Your task to perform on an android device: toggle priority inbox in the gmail app Image 0: 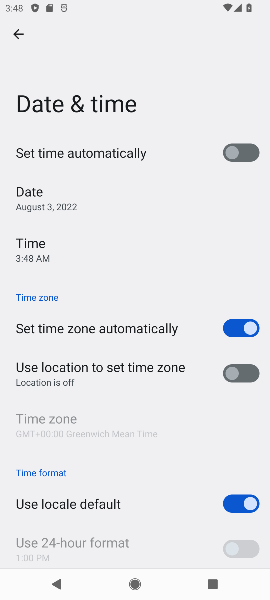
Step 0: press home button
Your task to perform on an android device: toggle priority inbox in the gmail app Image 1: 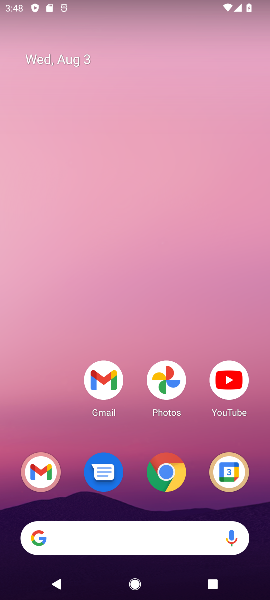
Step 1: drag from (206, 494) to (117, 86)
Your task to perform on an android device: toggle priority inbox in the gmail app Image 2: 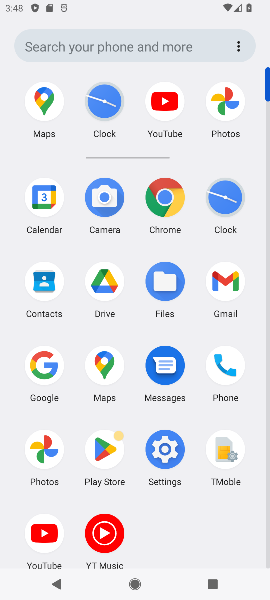
Step 2: click (225, 289)
Your task to perform on an android device: toggle priority inbox in the gmail app Image 3: 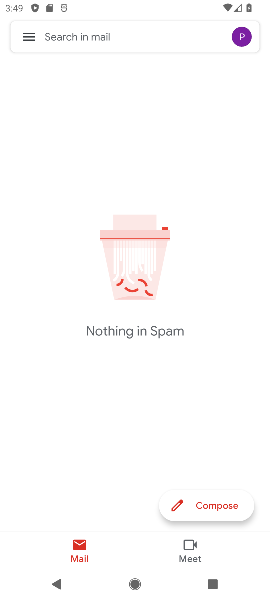
Step 3: click (23, 41)
Your task to perform on an android device: toggle priority inbox in the gmail app Image 4: 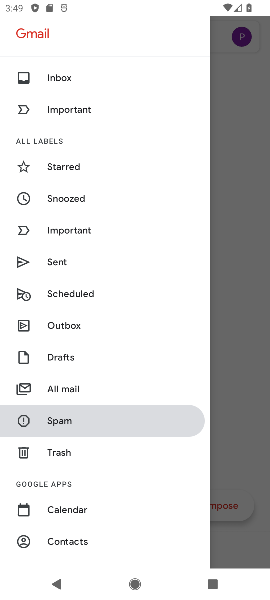
Step 4: drag from (43, 501) to (103, 112)
Your task to perform on an android device: toggle priority inbox in the gmail app Image 5: 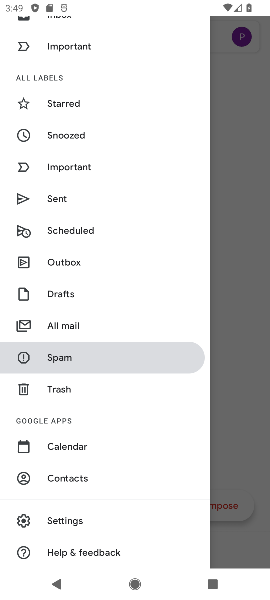
Step 5: click (53, 523)
Your task to perform on an android device: toggle priority inbox in the gmail app Image 6: 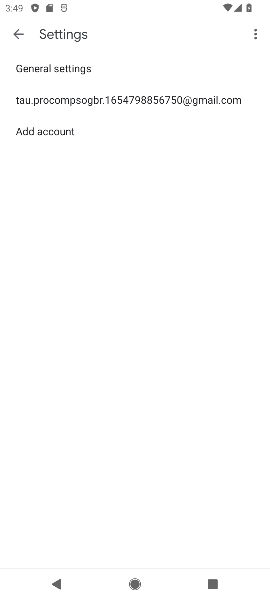
Step 6: click (66, 95)
Your task to perform on an android device: toggle priority inbox in the gmail app Image 7: 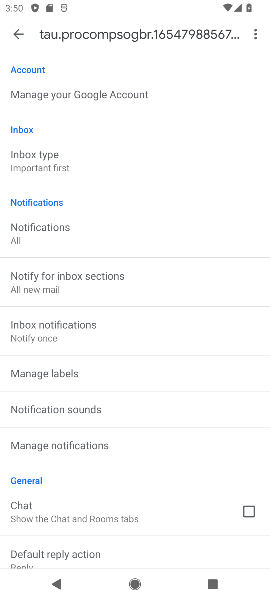
Step 7: drag from (130, 146) to (122, 475)
Your task to perform on an android device: toggle priority inbox in the gmail app Image 8: 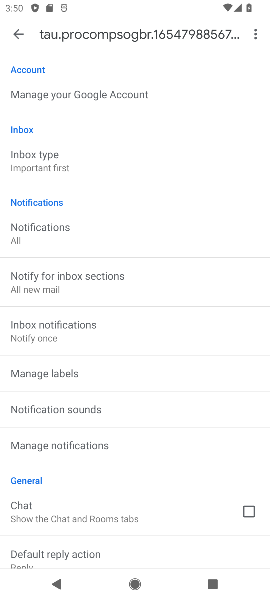
Step 8: click (70, 163)
Your task to perform on an android device: toggle priority inbox in the gmail app Image 9: 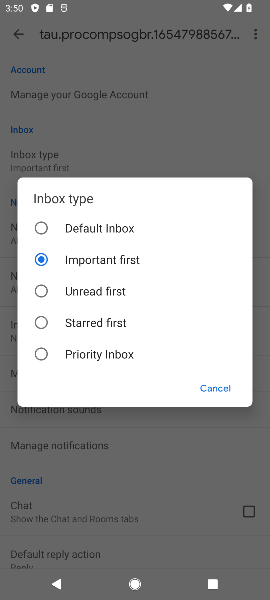
Step 9: click (40, 229)
Your task to perform on an android device: toggle priority inbox in the gmail app Image 10: 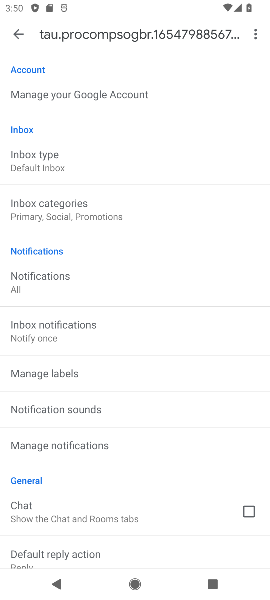
Step 10: task complete